Your task to perform on an android device: open app "Flipkart Online Shopping App" Image 0: 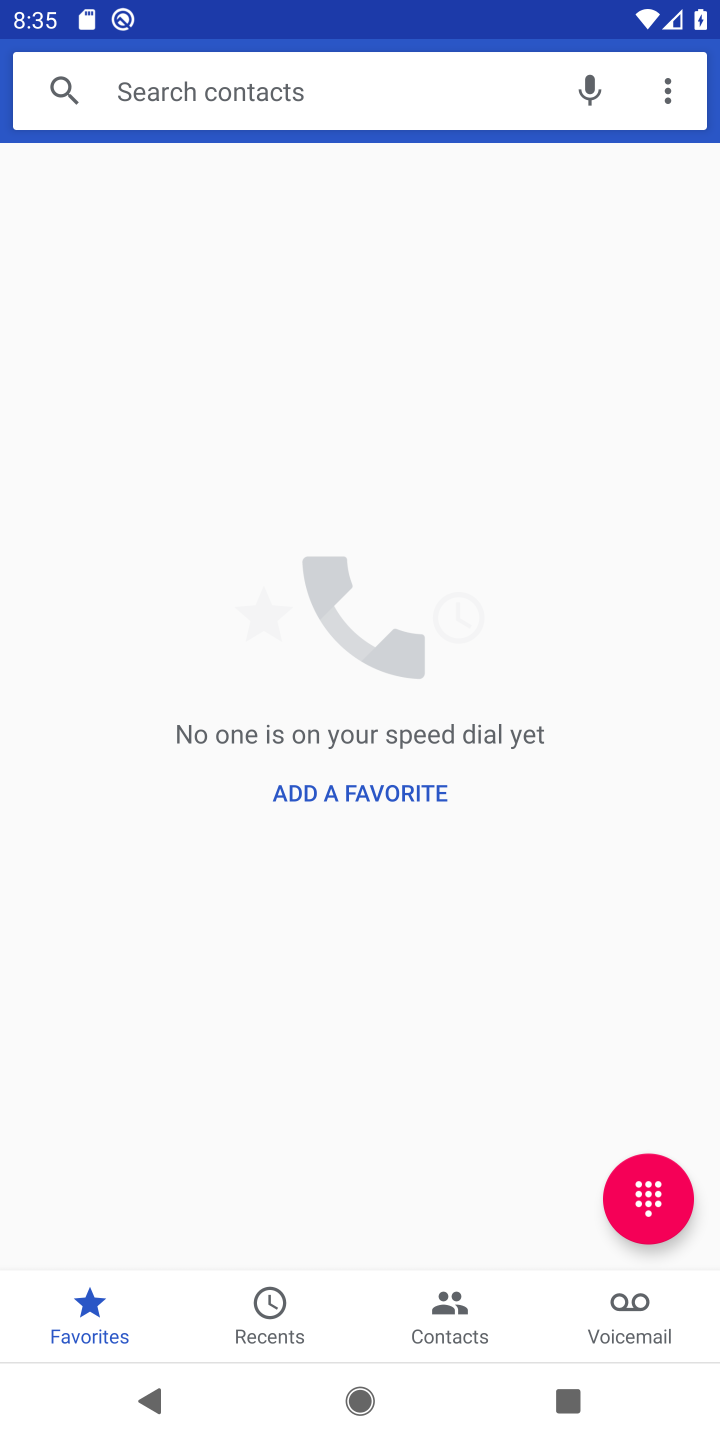
Step 0: press home button
Your task to perform on an android device: open app "Flipkart Online Shopping App" Image 1: 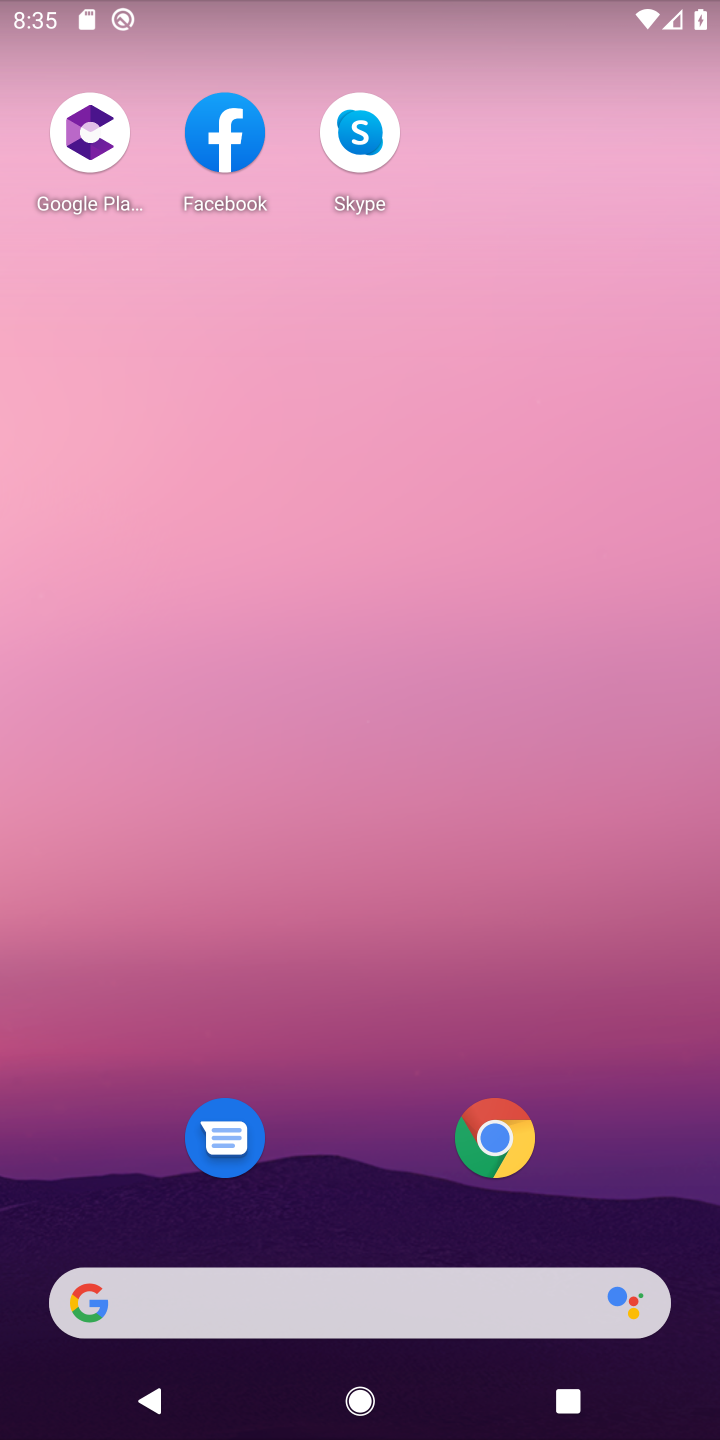
Step 1: drag from (337, 1125) to (337, 491)
Your task to perform on an android device: open app "Flipkart Online Shopping App" Image 2: 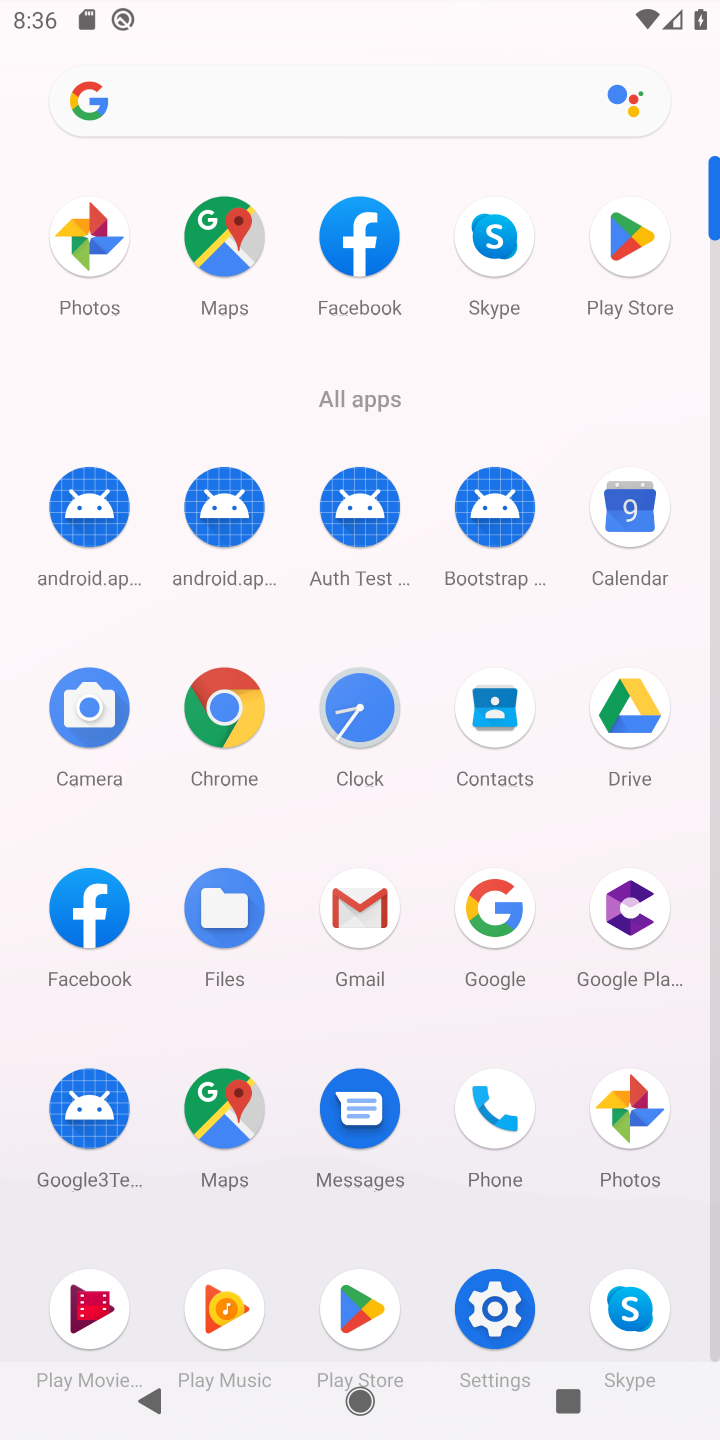
Step 2: click (621, 241)
Your task to perform on an android device: open app "Flipkart Online Shopping App" Image 3: 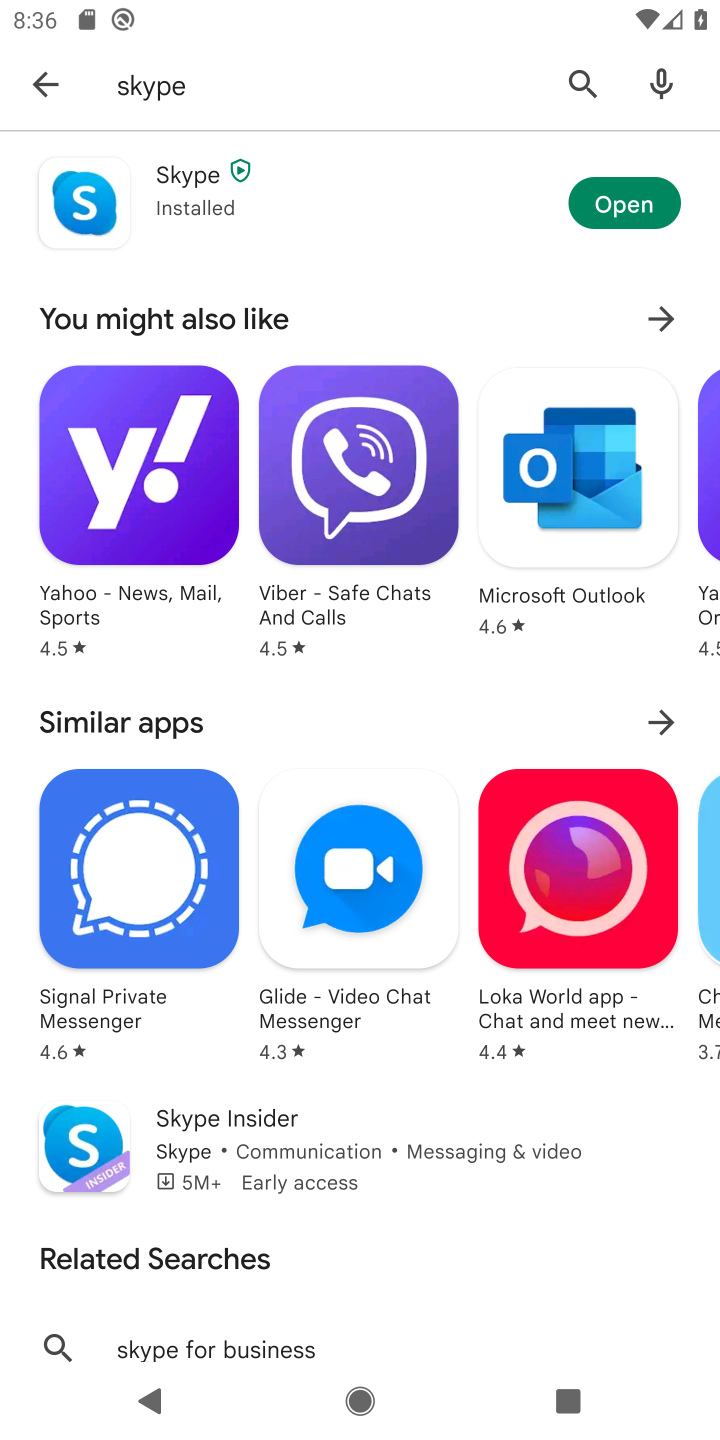
Step 3: click (578, 79)
Your task to perform on an android device: open app "Flipkart Online Shopping App" Image 4: 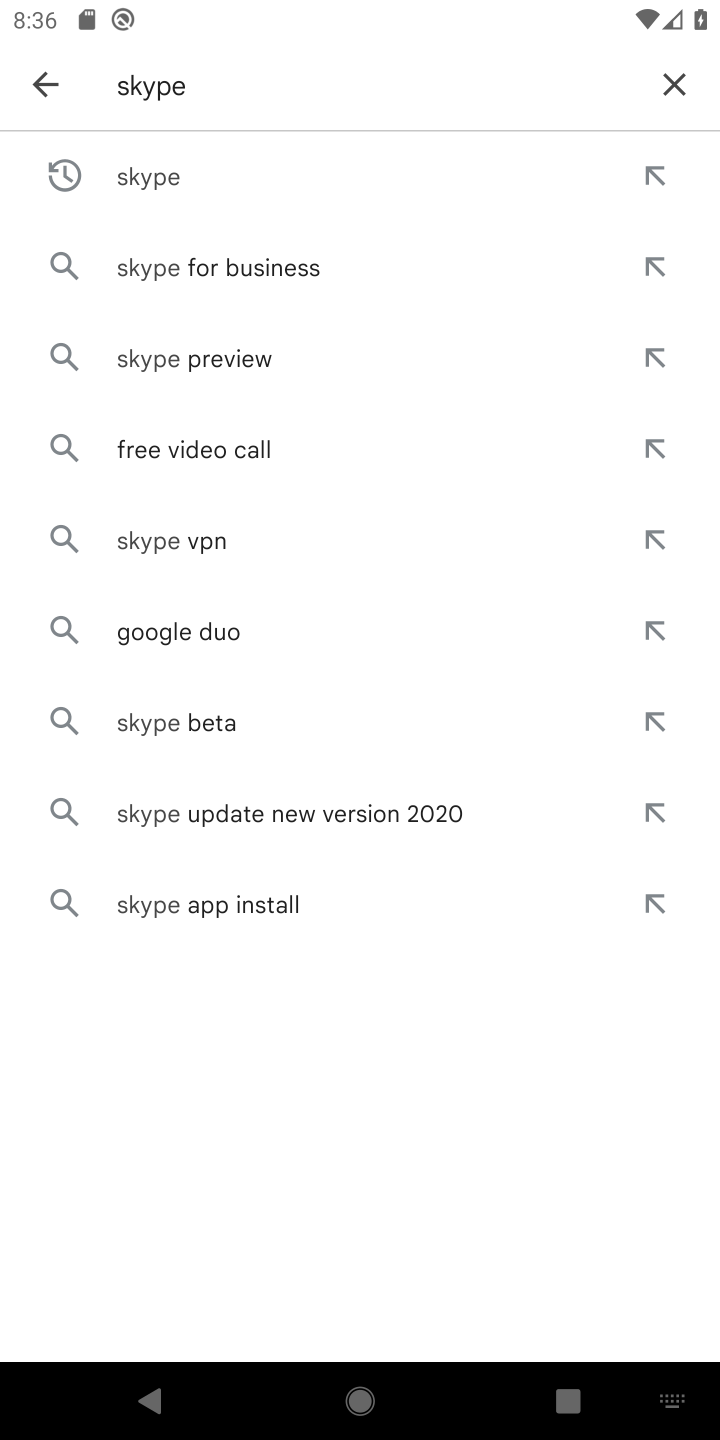
Step 4: click (671, 96)
Your task to perform on an android device: open app "Flipkart Online Shopping App" Image 5: 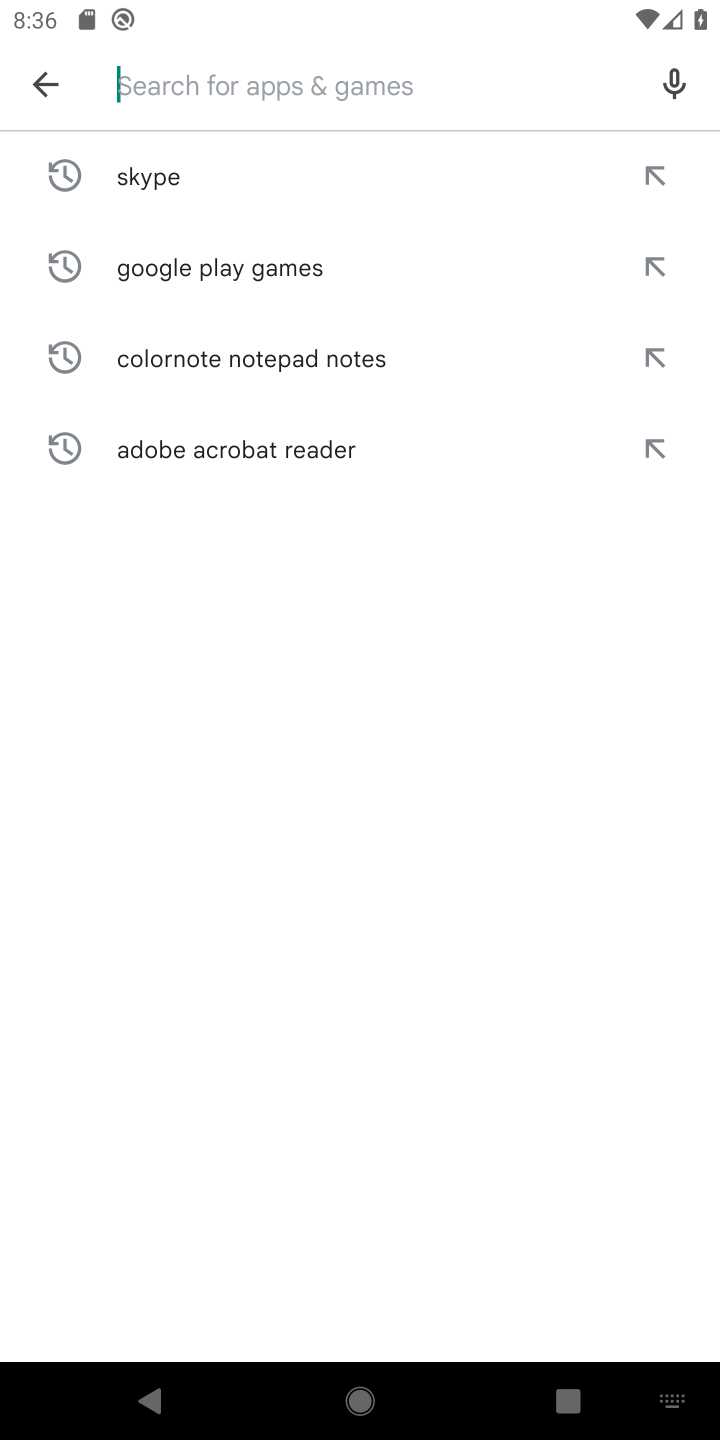
Step 5: type "Flipkart Online Shopping App"
Your task to perform on an android device: open app "Flipkart Online Shopping App" Image 6: 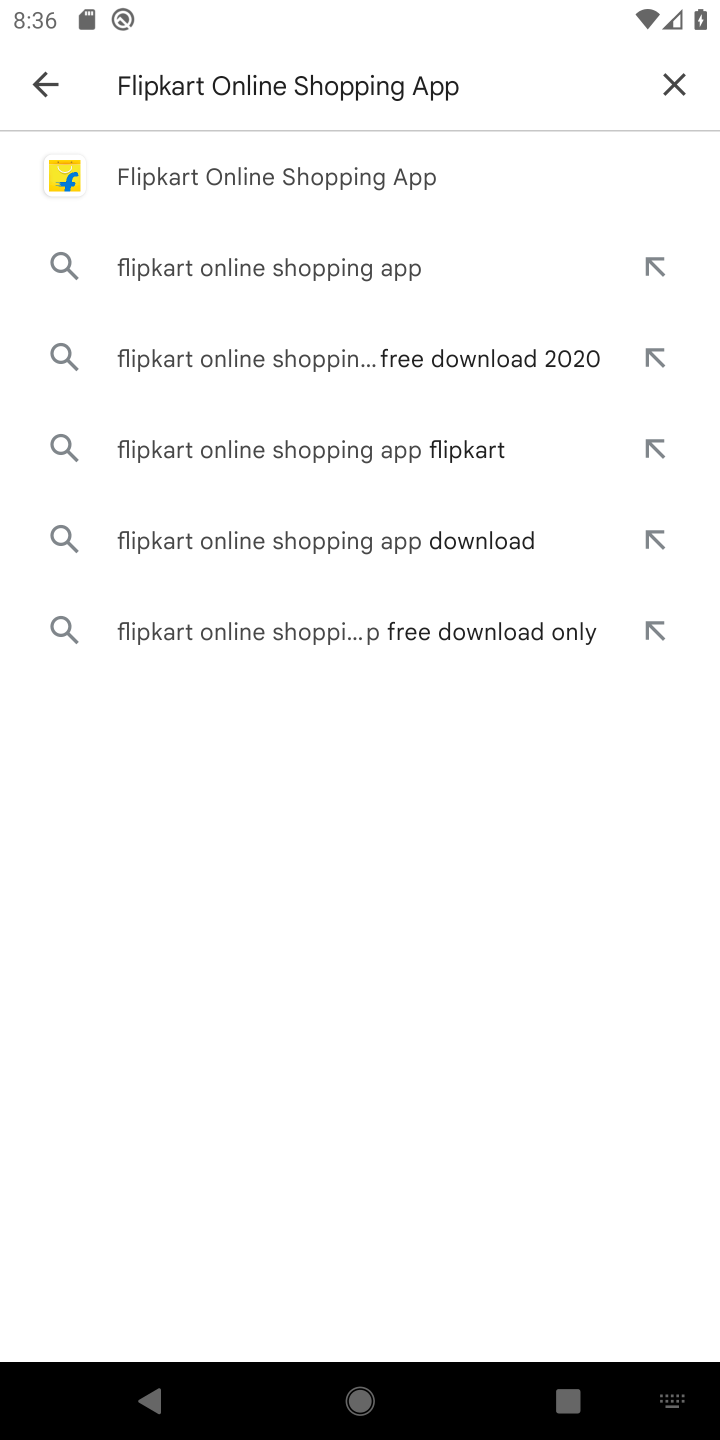
Step 6: click (259, 167)
Your task to perform on an android device: open app "Flipkart Online Shopping App" Image 7: 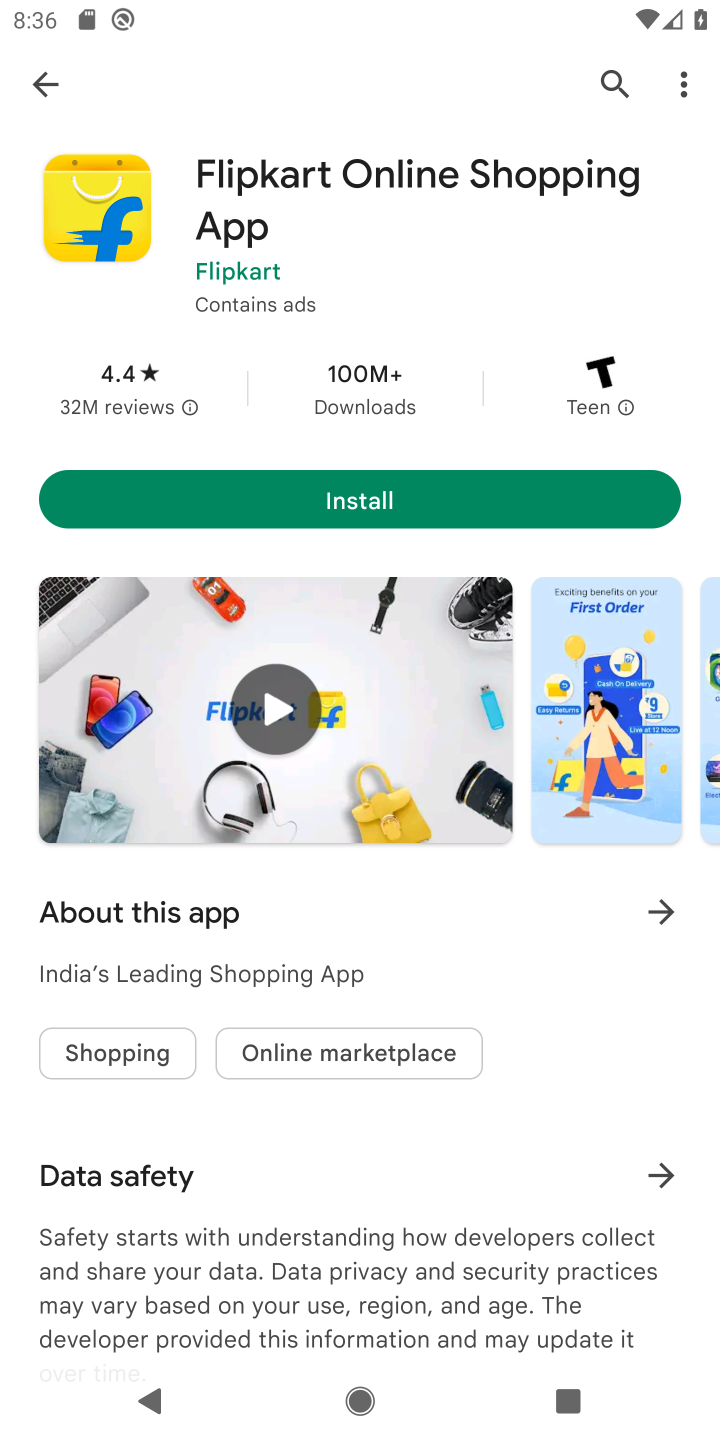
Step 7: task complete